Your task to perform on an android device: Open calendar and show me the third week of next month Image 0: 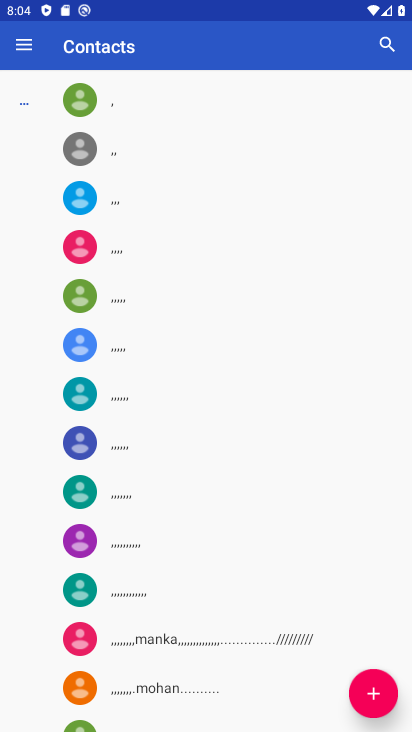
Step 0: press home button
Your task to perform on an android device: Open calendar and show me the third week of next month Image 1: 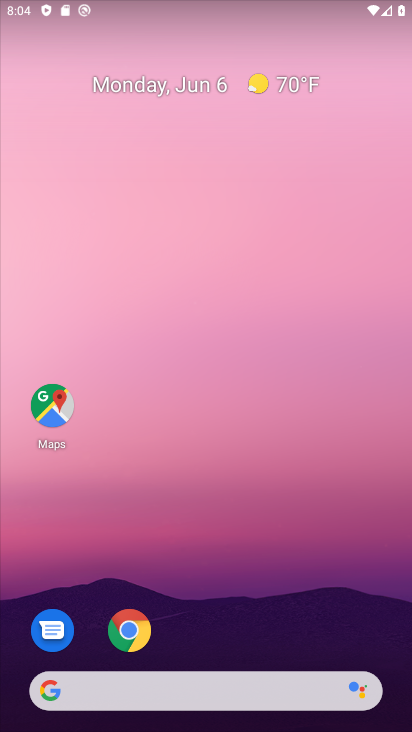
Step 1: drag from (207, 642) to (215, 141)
Your task to perform on an android device: Open calendar and show me the third week of next month Image 2: 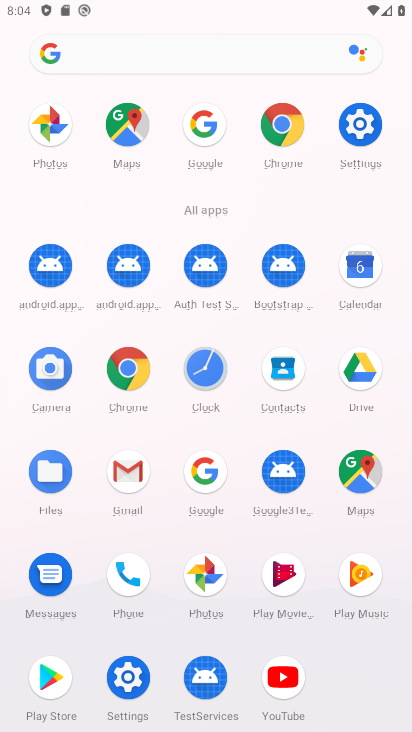
Step 2: click (345, 268)
Your task to perform on an android device: Open calendar and show me the third week of next month Image 3: 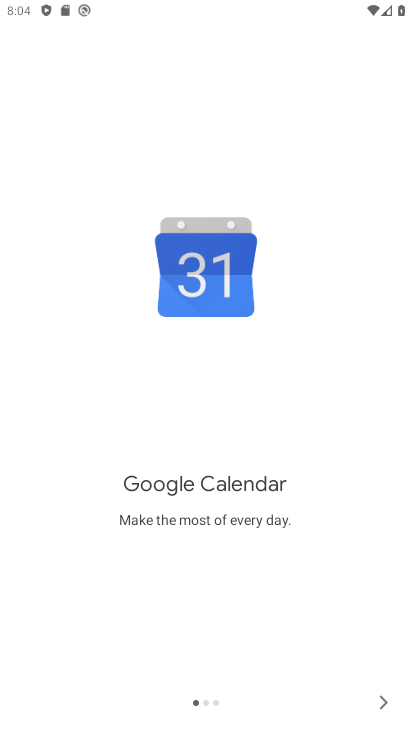
Step 3: click (372, 700)
Your task to perform on an android device: Open calendar and show me the third week of next month Image 4: 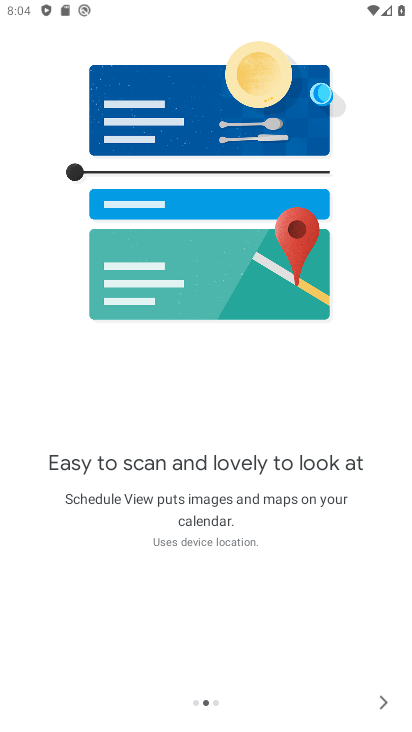
Step 4: click (372, 700)
Your task to perform on an android device: Open calendar and show me the third week of next month Image 5: 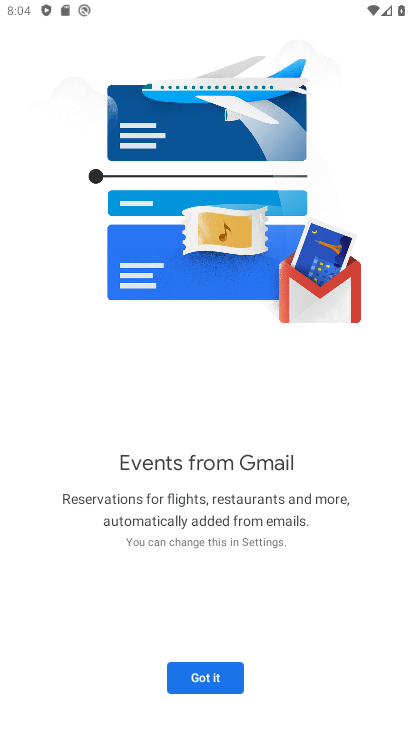
Step 5: click (372, 700)
Your task to perform on an android device: Open calendar and show me the third week of next month Image 6: 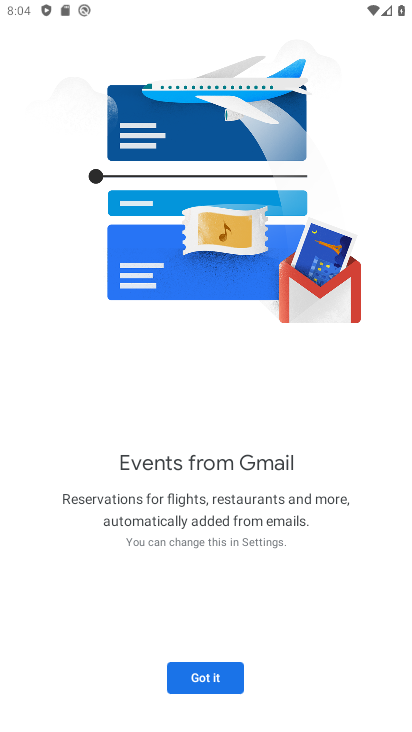
Step 6: click (187, 676)
Your task to perform on an android device: Open calendar and show me the third week of next month Image 7: 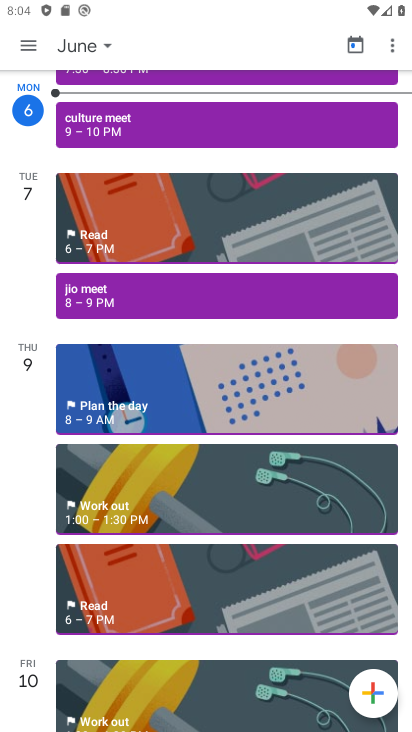
Step 7: click (107, 40)
Your task to perform on an android device: Open calendar and show me the third week of next month Image 8: 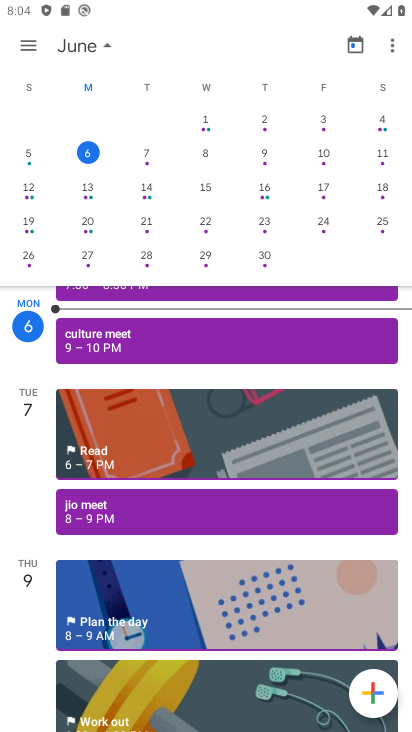
Step 8: drag from (304, 227) to (3, 193)
Your task to perform on an android device: Open calendar and show me the third week of next month Image 9: 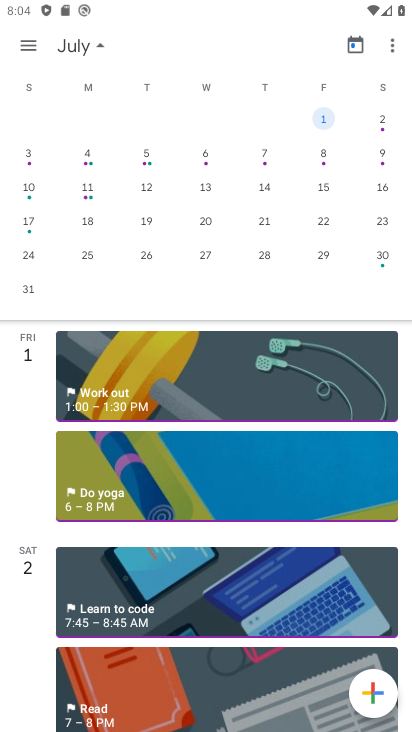
Step 9: click (20, 194)
Your task to perform on an android device: Open calendar and show me the third week of next month Image 10: 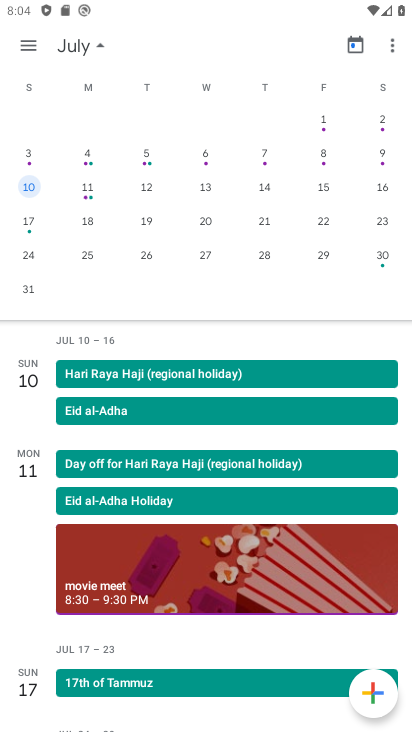
Step 10: task complete